Your task to perform on an android device: create a new album in the google photos Image 0: 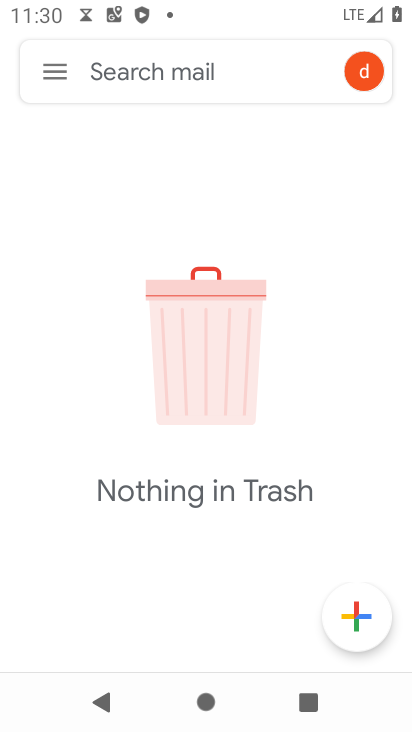
Step 0: click (47, 68)
Your task to perform on an android device: create a new album in the google photos Image 1: 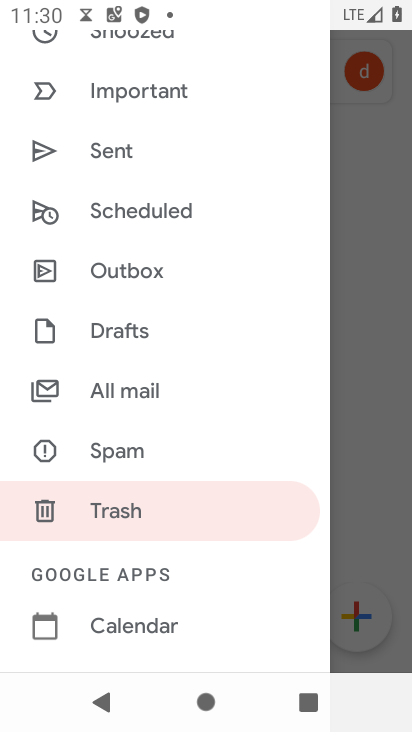
Step 1: press home button
Your task to perform on an android device: create a new album in the google photos Image 2: 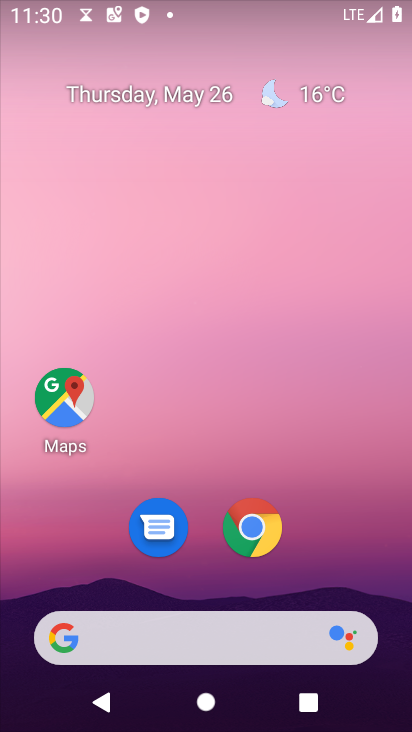
Step 2: drag from (230, 592) to (7, 454)
Your task to perform on an android device: create a new album in the google photos Image 3: 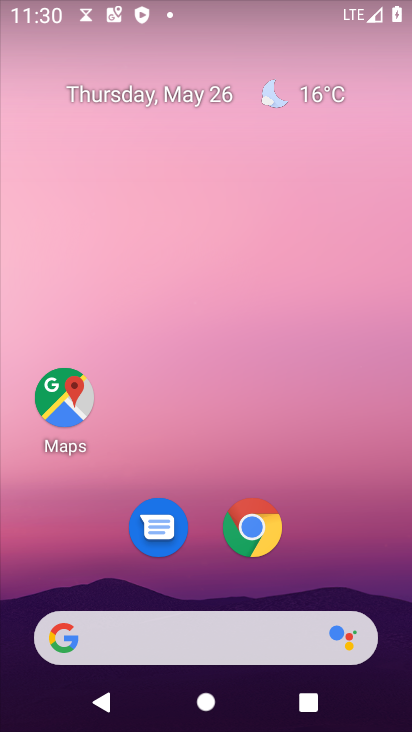
Step 3: drag from (199, 549) to (241, 0)
Your task to perform on an android device: create a new album in the google photos Image 4: 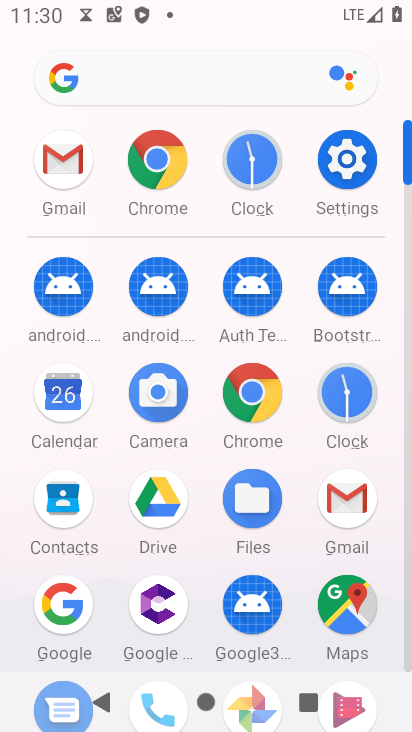
Step 4: drag from (198, 489) to (239, 173)
Your task to perform on an android device: create a new album in the google photos Image 5: 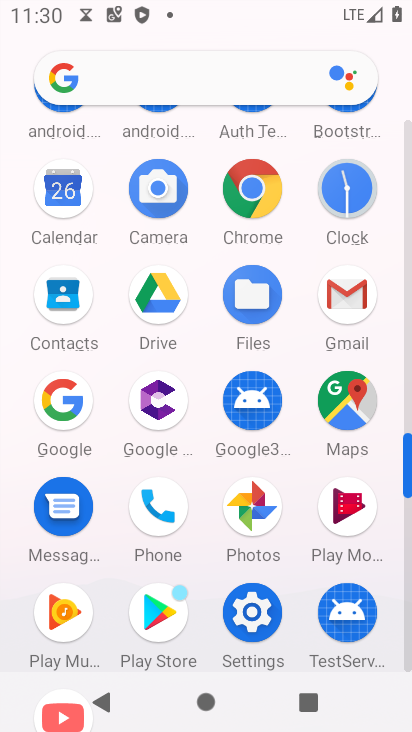
Step 5: click (262, 505)
Your task to perform on an android device: create a new album in the google photos Image 6: 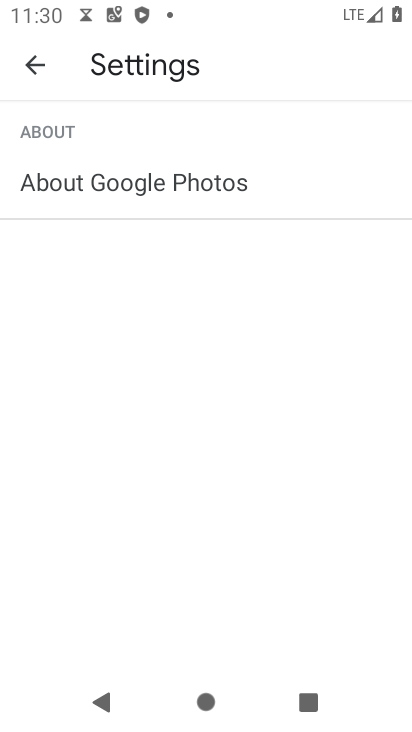
Step 6: click (37, 68)
Your task to perform on an android device: create a new album in the google photos Image 7: 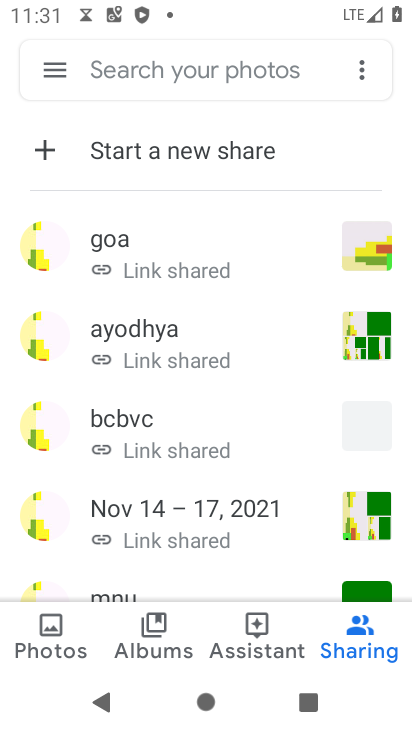
Step 7: click (139, 638)
Your task to perform on an android device: create a new album in the google photos Image 8: 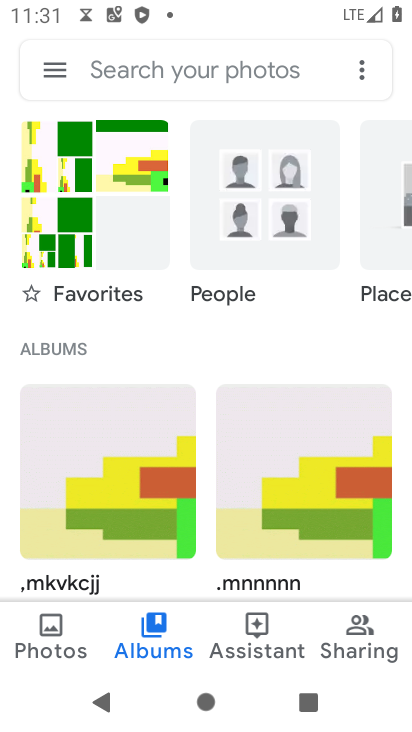
Step 8: click (354, 68)
Your task to perform on an android device: create a new album in the google photos Image 9: 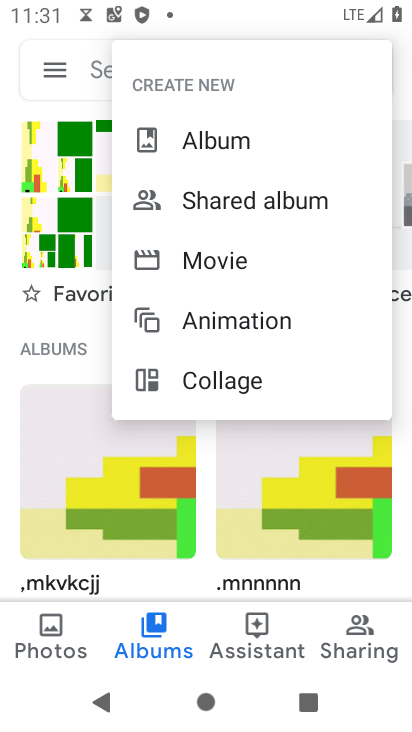
Step 9: click (238, 144)
Your task to perform on an android device: create a new album in the google photos Image 10: 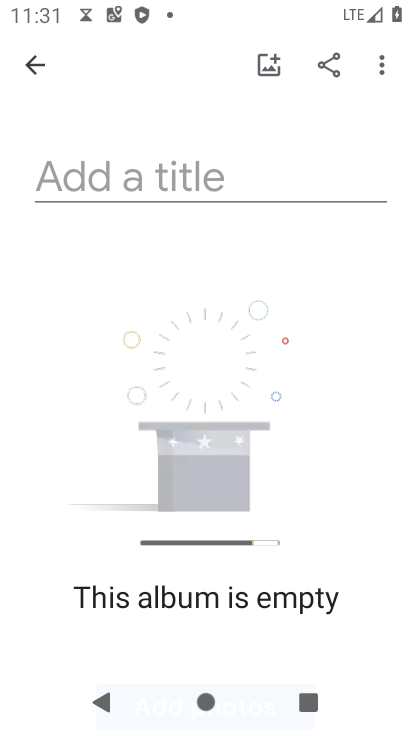
Step 10: click (78, 139)
Your task to perform on an android device: create a new album in the google photos Image 11: 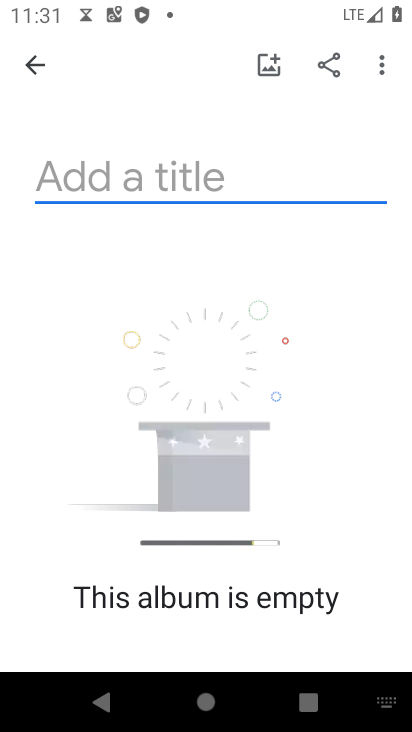
Step 11: type "jioklpioj"
Your task to perform on an android device: create a new album in the google photos Image 12: 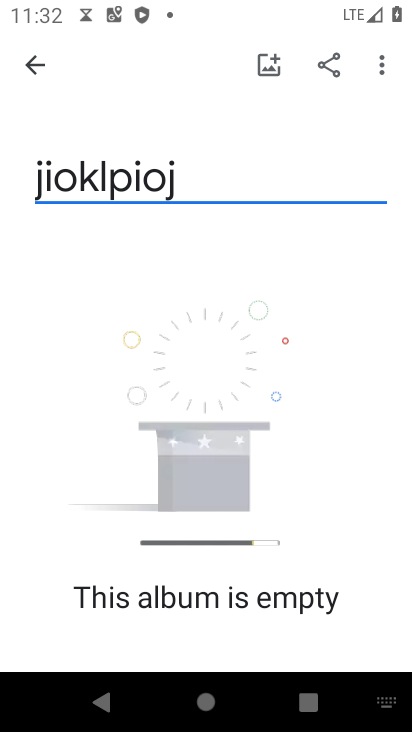
Step 12: click (275, 62)
Your task to perform on an android device: create a new album in the google photos Image 13: 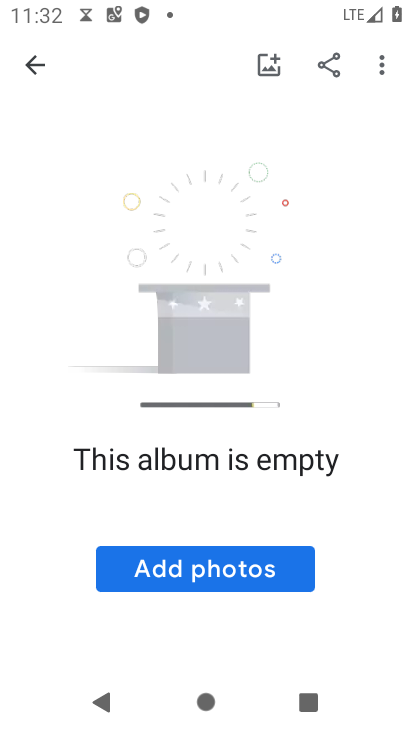
Step 13: click (252, 577)
Your task to perform on an android device: create a new album in the google photos Image 14: 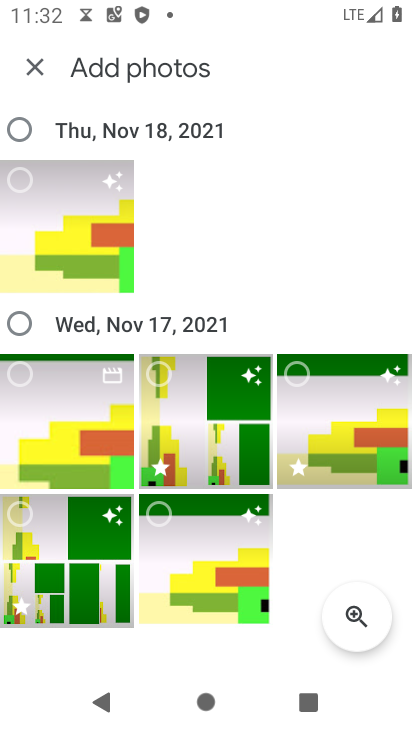
Step 14: click (63, 234)
Your task to perform on an android device: create a new album in the google photos Image 15: 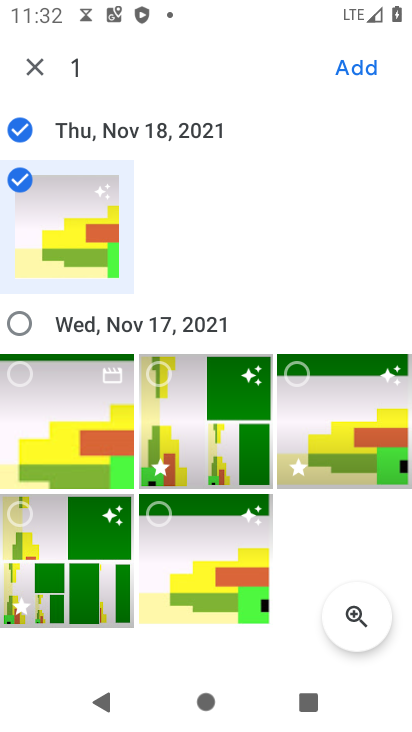
Step 15: click (373, 62)
Your task to perform on an android device: create a new album in the google photos Image 16: 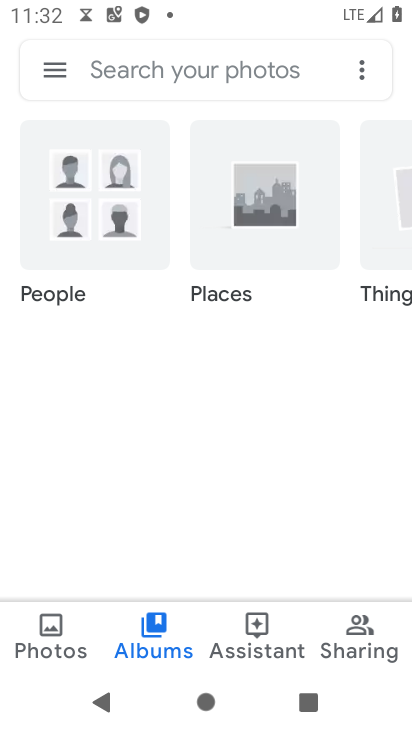
Step 16: task complete